Your task to perform on an android device: see creations saved in the google photos Image 0: 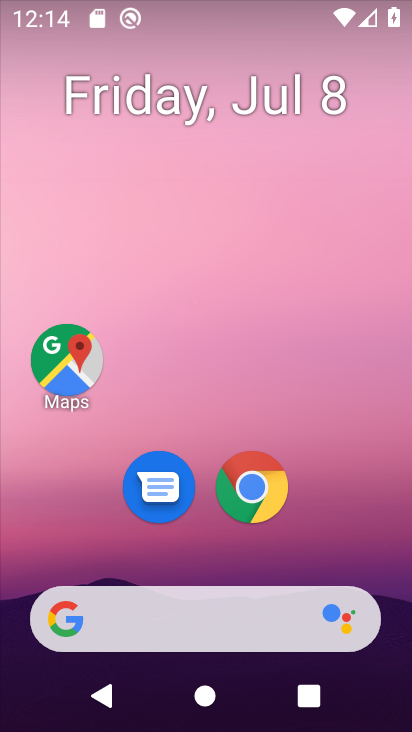
Step 0: drag from (369, 537) to (383, 168)
Your task to perform on an android device: see creations saved in the google photos Image 1: 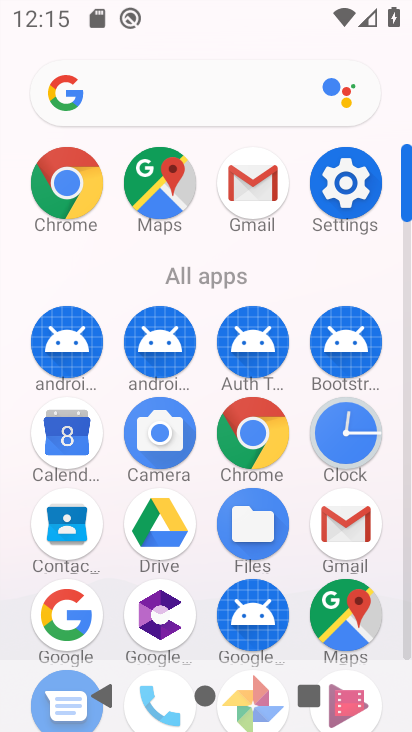
Step 1: drag from (388, 579) to (375, 376)
Your task to perform on an android device: see creations saved in the google photos Image 2: 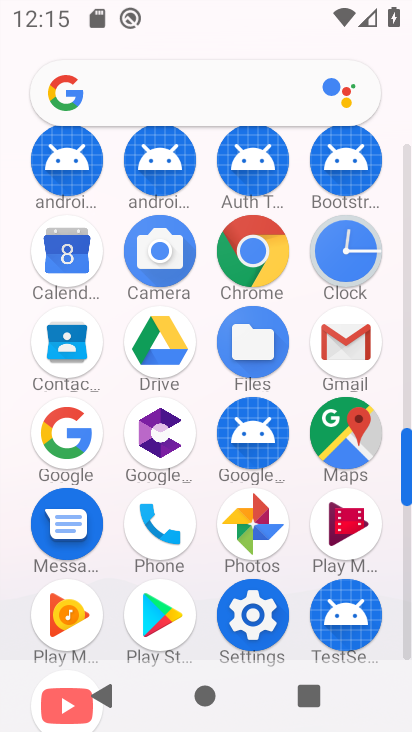
Step 2: click (258, 522)
Your task to perform on an android device: see creations saved in the google photos Image 3: 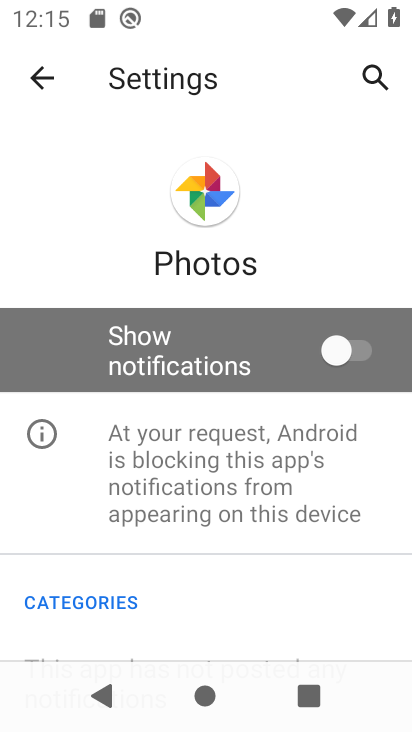
Step 3: press back button
Your task to perform on an android device: see creations saved in the google photos Image 4: 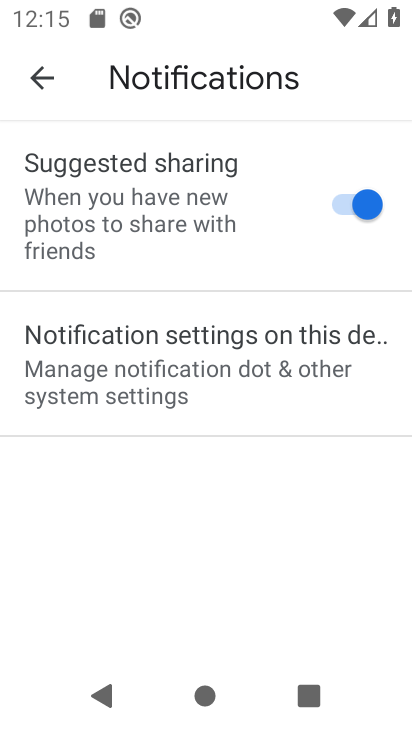
Step 4: press back button
Your task to perform on an android device: see creations saved in the google photos Image 5: 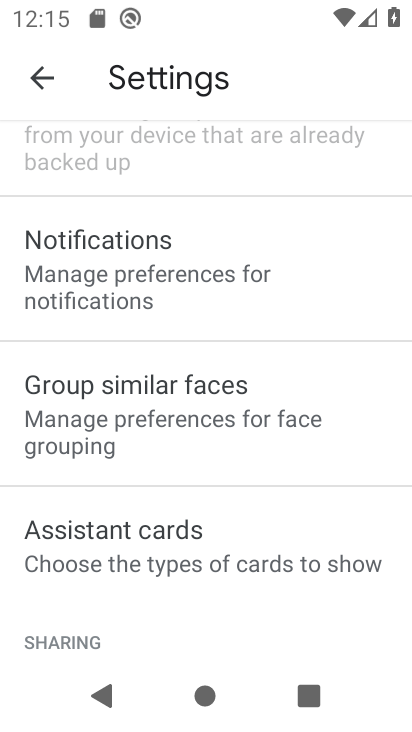
Step 5: press back button
Your task to perform on an android device: see creations saved in the google photos Image 6: 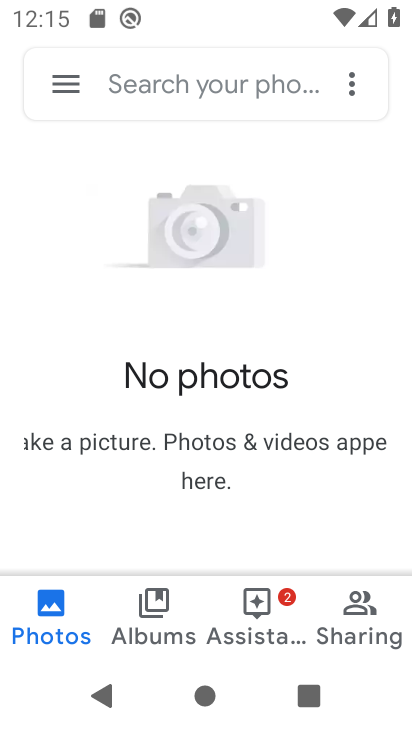
Step 6: click (252, 95)
Your task to perform on an android device: see creations saved in the google photos Image 7: 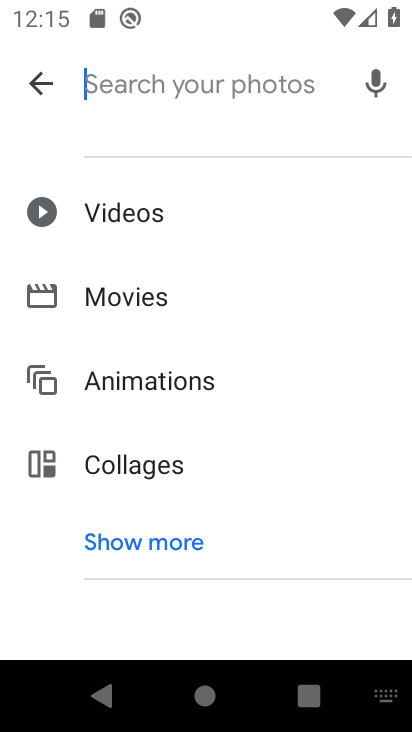
Step 7: click (216, 569)
Your task to perform on an android device: see creations saved in the google photos Image 8: 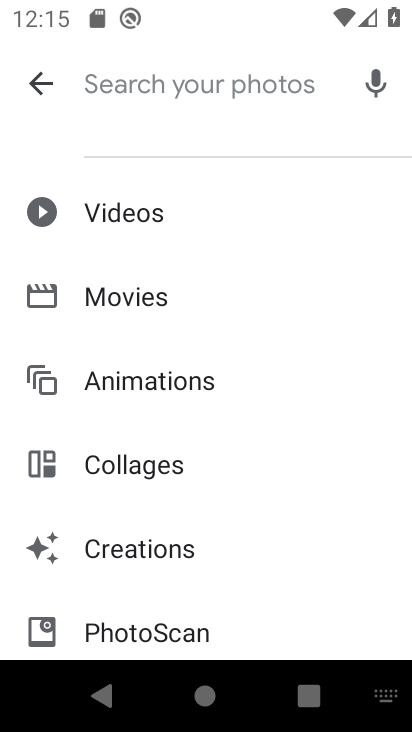
Step 8: click (180, 552)
Your task to perform on an android device: see creations saved in the google photos Image 9: 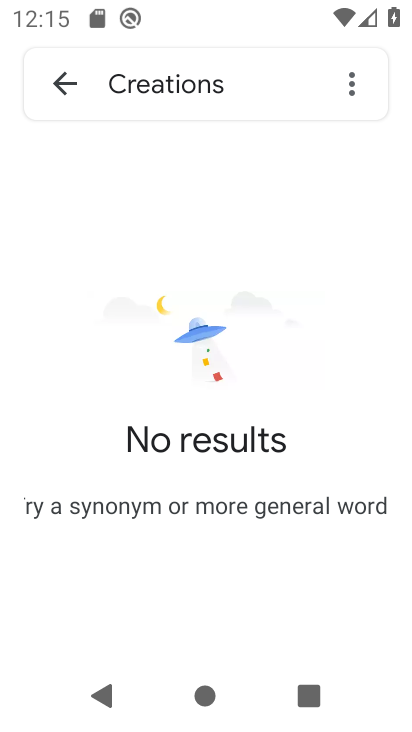
Step 9: task complete